Your task to perform on an android device: Open location settings Image 0: 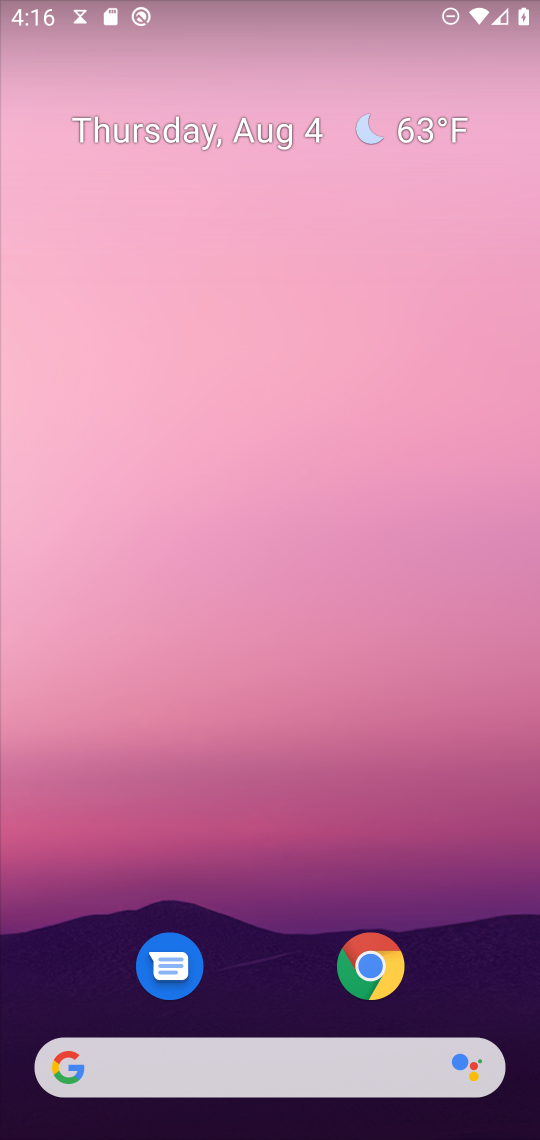
Step 0: drag from (216, 752) to (174, 174)
Your task to perform on an android device: Open location settings Image 1: 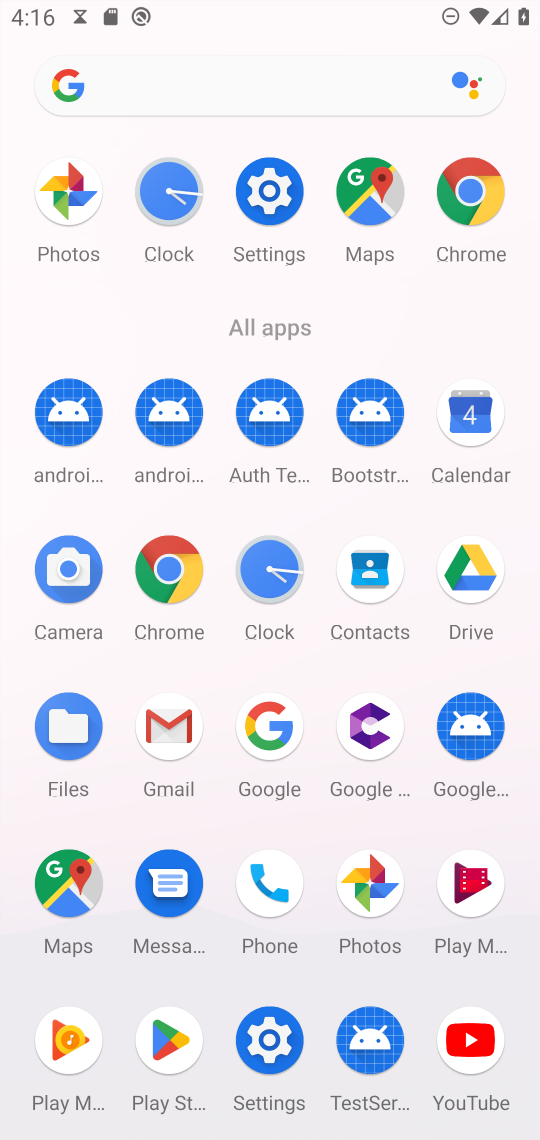
Step 1: click (260, 179)
Your task to perform on an android device: Open location settings Image 2: 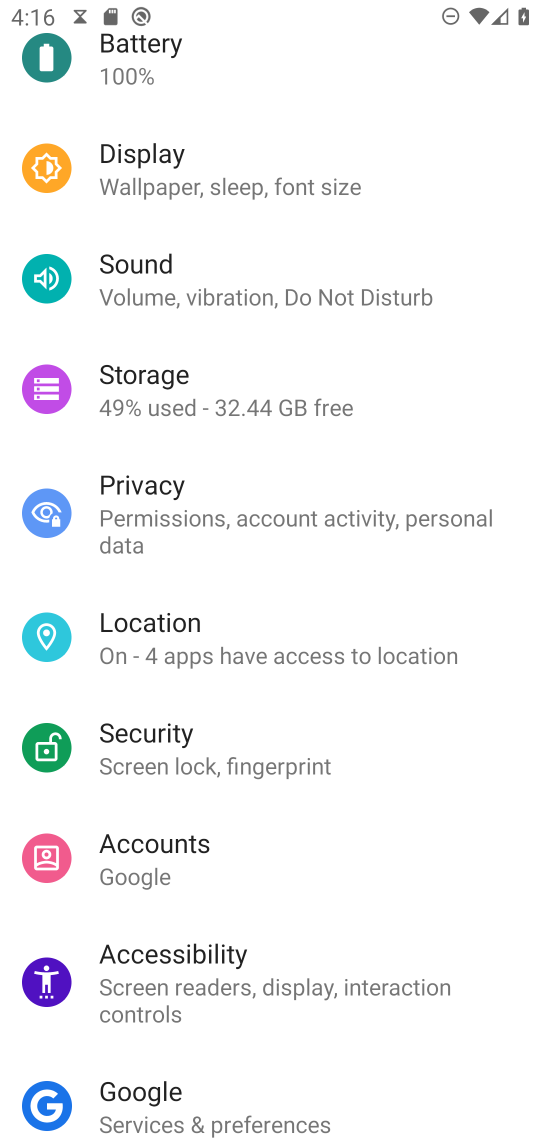
Step 2: click (147, 654)
Your task to perform on an android device: Open location settings Image 3: 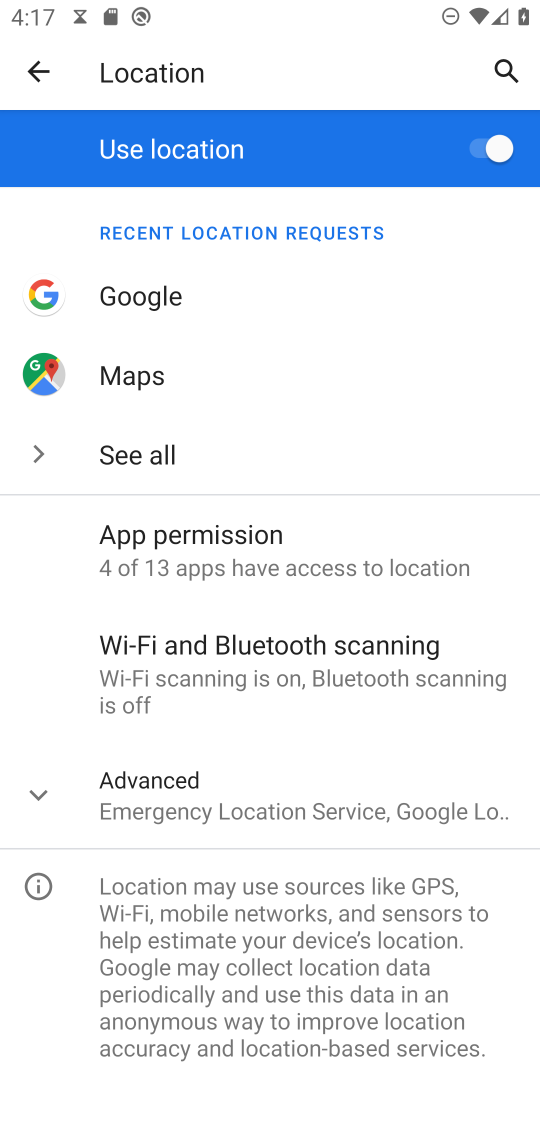
Step 3: task complete